Your task to perform on an android device: change the clock style Image 0: 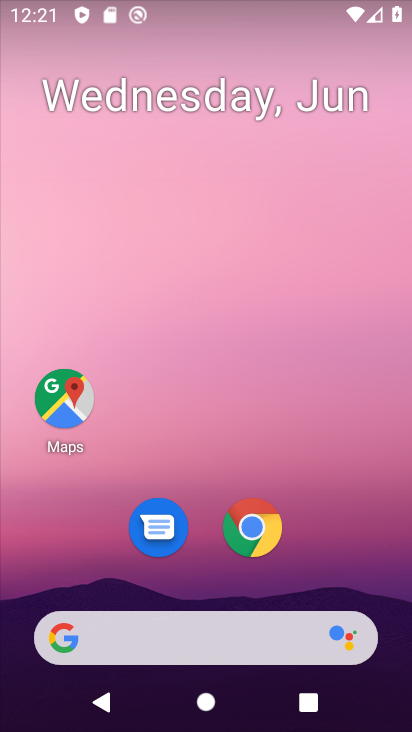
Step 0: drag from (152, 48) to (103, 40)
Your task to perform on an android device: change the clock style Image 1: 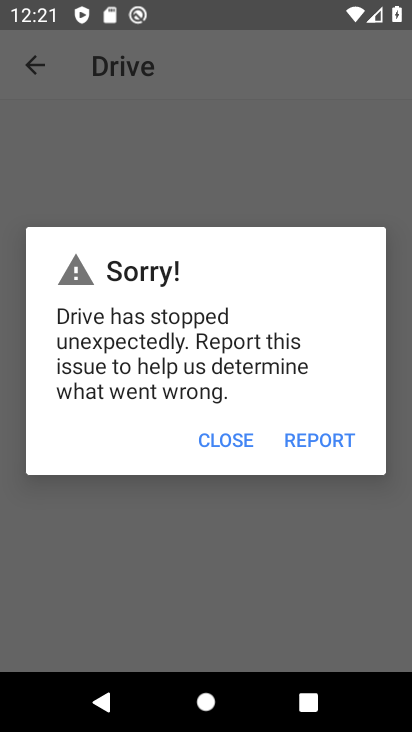
Step 1: press home button
Your task to perform on an android device: change the clock style Image 2: 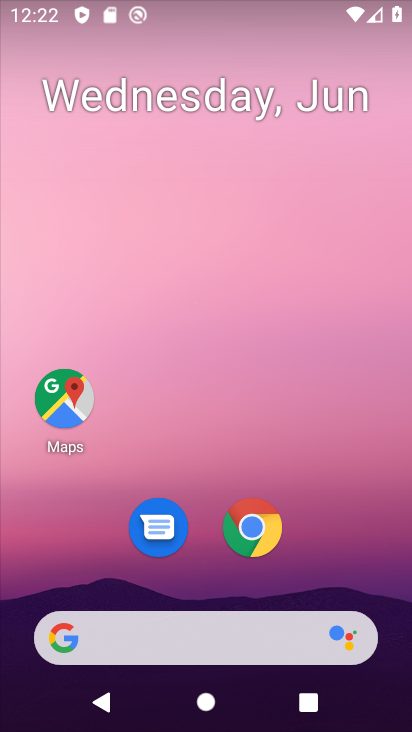
Step 2: drag from (186, 648) to (225, 107)
Your task to perform on an android device: change the clock style Image 3: 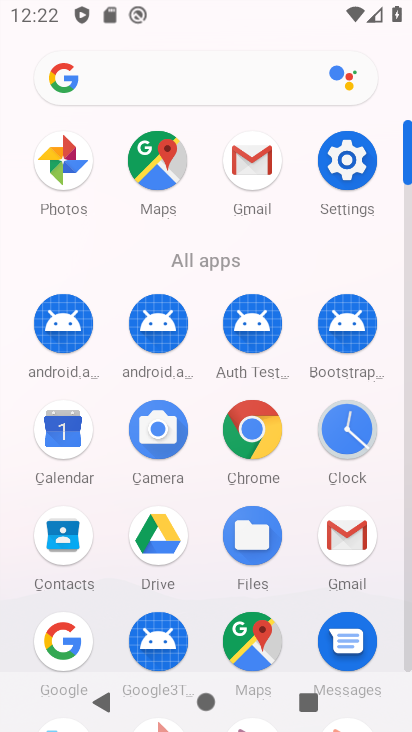
Step 3: click (335, 439)
Your task to perform on an android device: change the clock style Image 4: 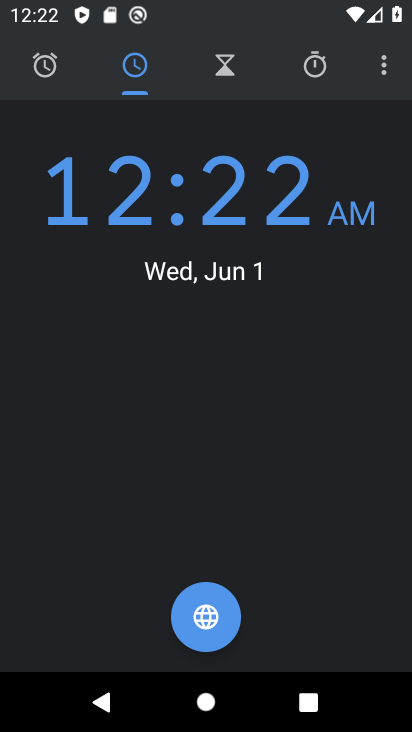
Step 4: click (378, 72)
Your task to perform on an android device: change the clock style Image 5: 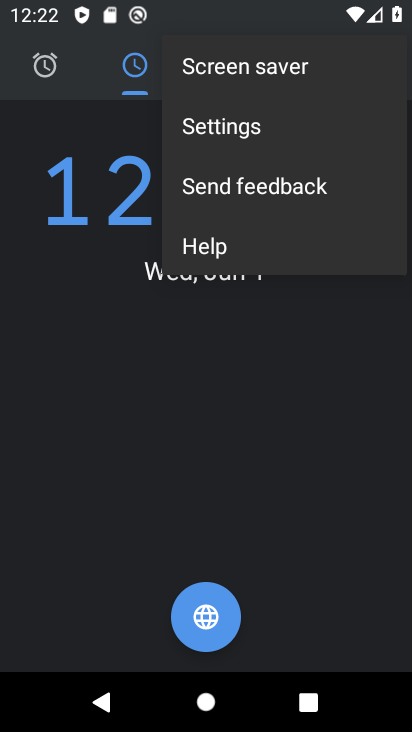
Step 5: click (266, 132)
Your task to perform on an android device: change the clock style Image 6: 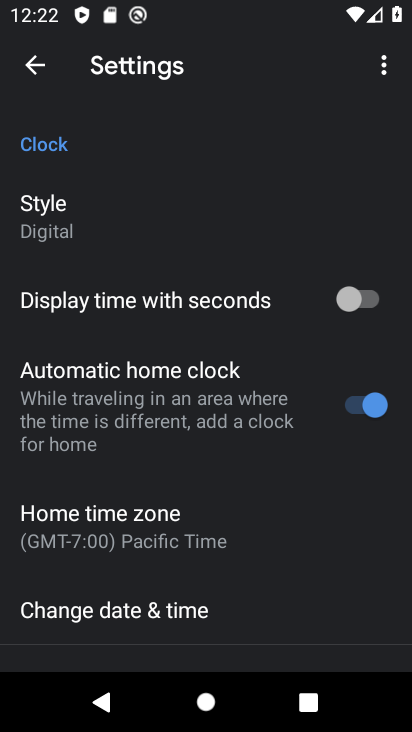
Step 6: click (127, 210)
Your task to perform on an android device: change the clock style Image 7: 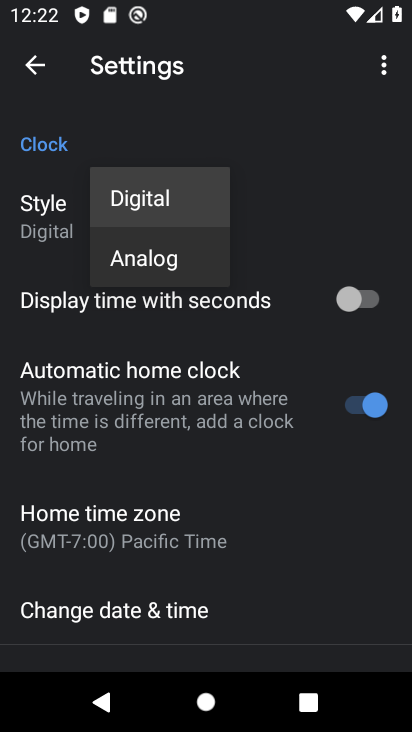
Step 7: click (170, 253)
Your task to perform on an android device: change the clock style Image 8: 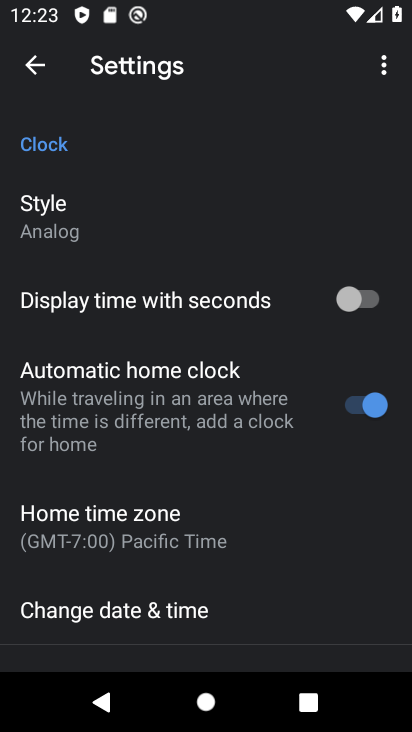
Step 8: task complete